Your task to perform on an android device: open app "Microsoft Authenticator" (install if not already installed) Image 0: 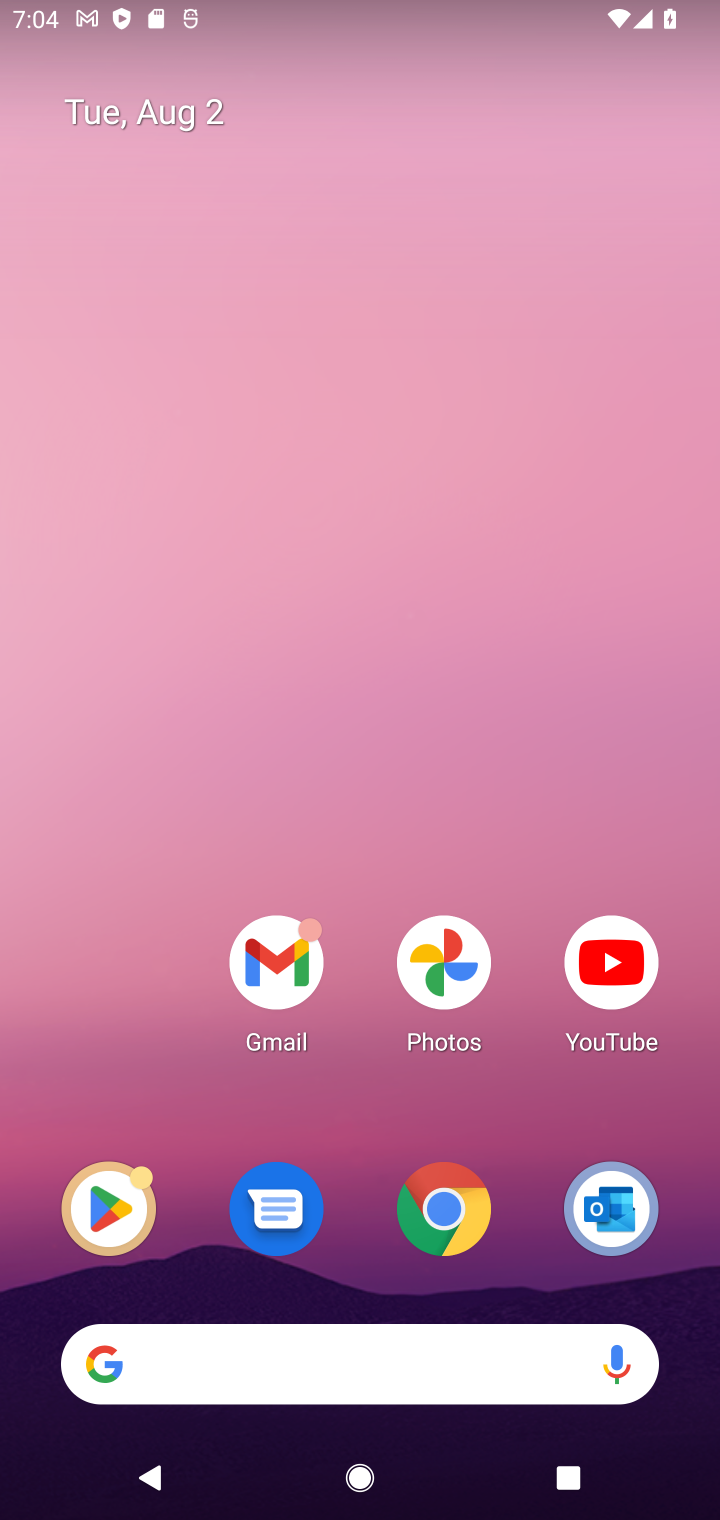
Step 0: drag from (408, 1153) to (405, 186)
Your task to perform on an android device: open app "Microsoft Authenticator" (install if not already installed) Image 1: 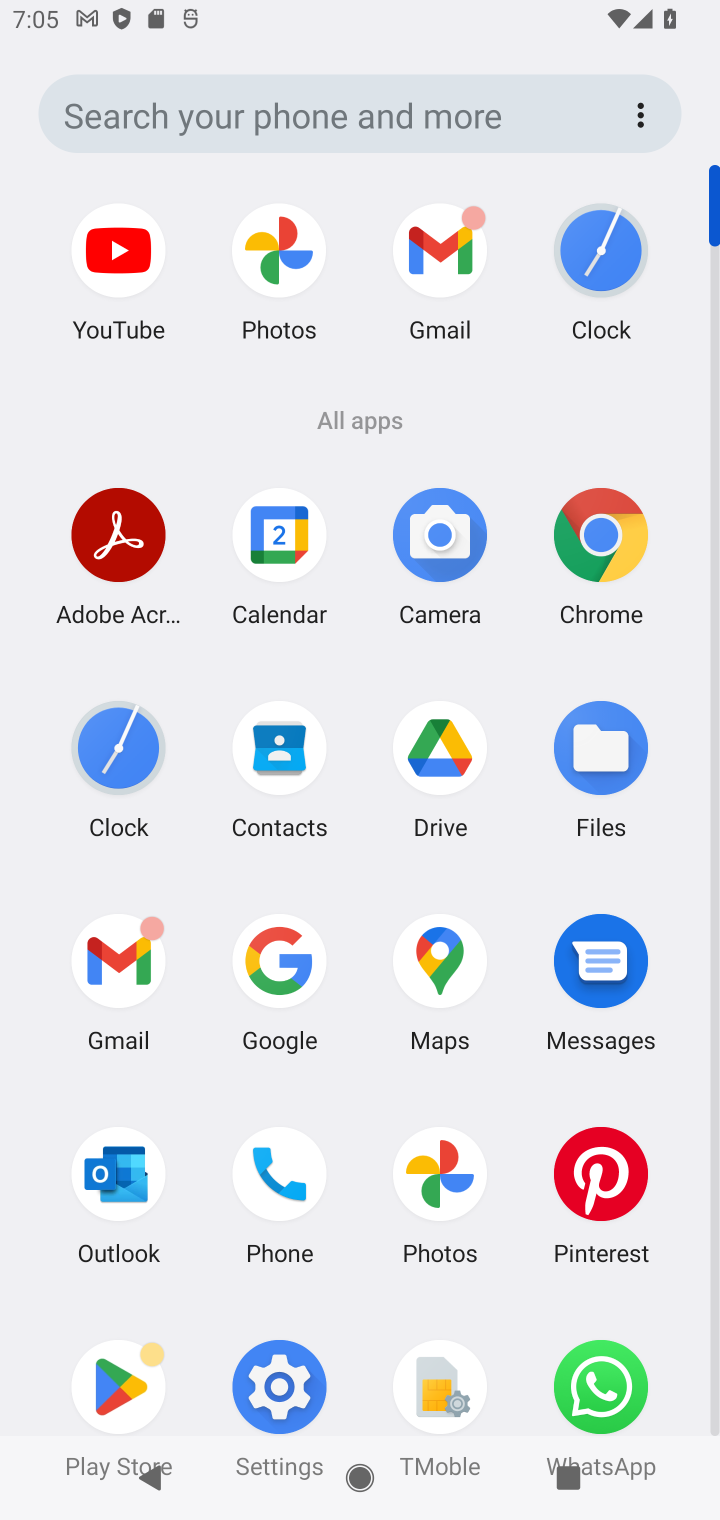
Step 1: click (110, 1390)
Your task to perform on an android device: open app "Microsoft Authenticator" (install if not already installed) Image 2: 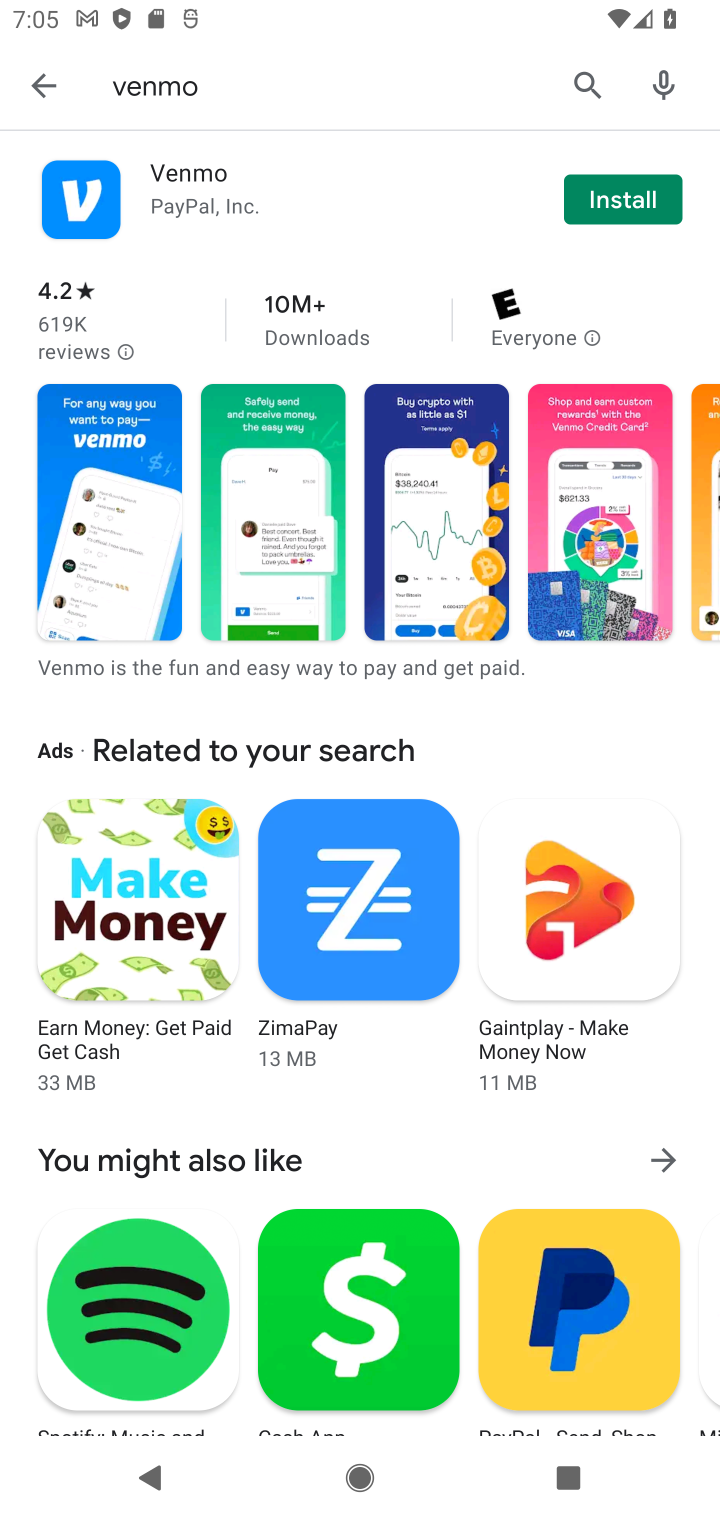
Step 2: click (584, 73)
Your task to perform on an android device: open app "Microsoft Authenticator" (install if not already installed) Image 3: 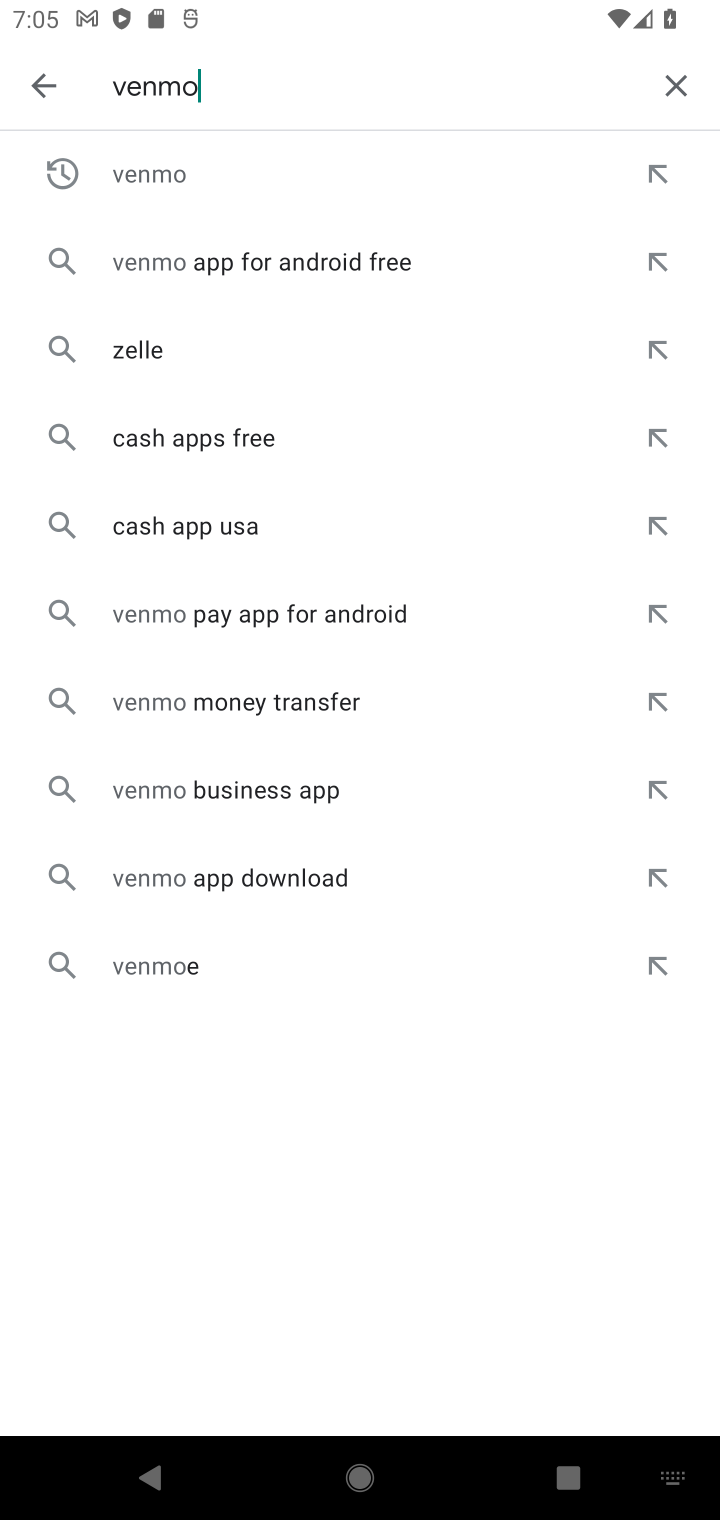
Step 3: click (673, 90)
Your task to perform on an android device: open app "Microsoft Authenticator" (install if not already installed) Image 4: 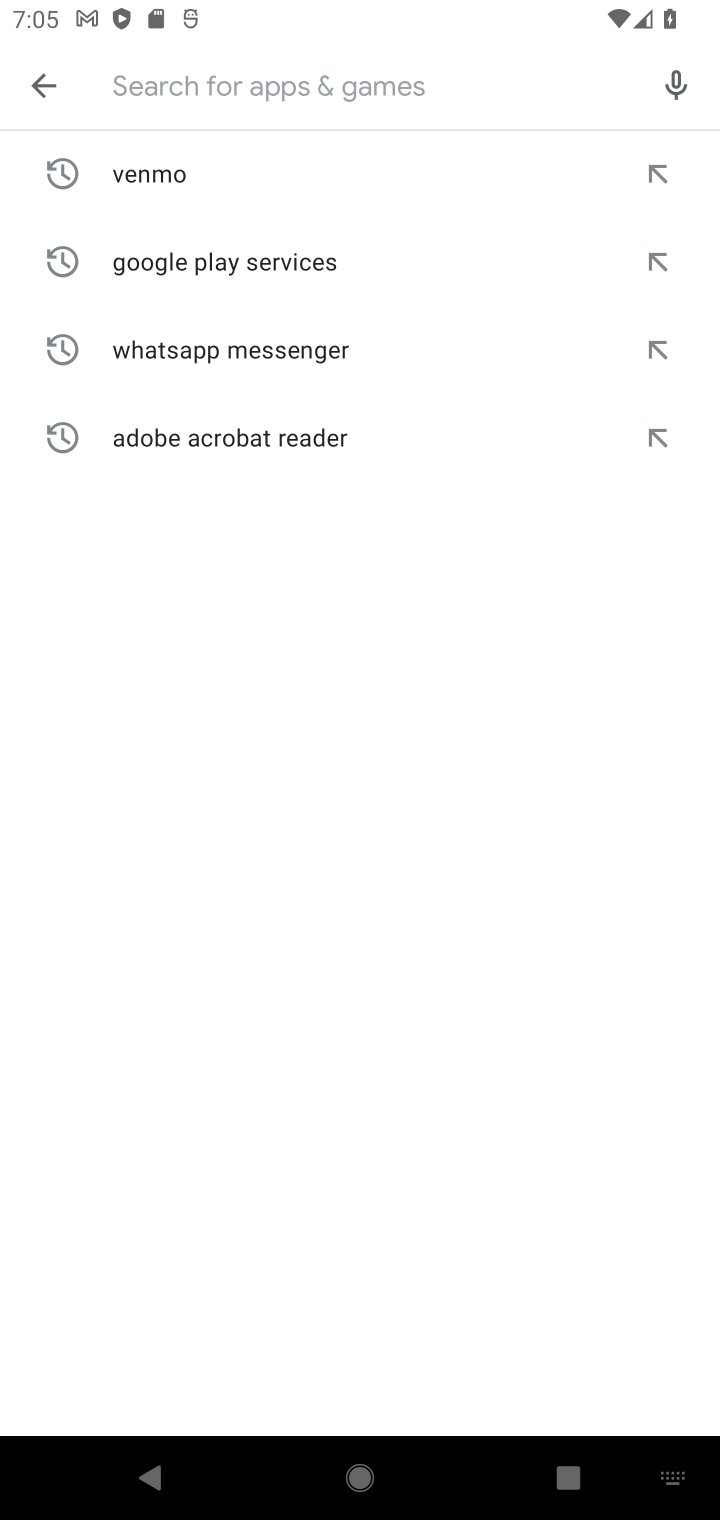
Step 4: type "Microsoft Authenticator"
Your task to perform on an android device: open app "Microsoft Authenticator" (install if not already installed) Image 5: 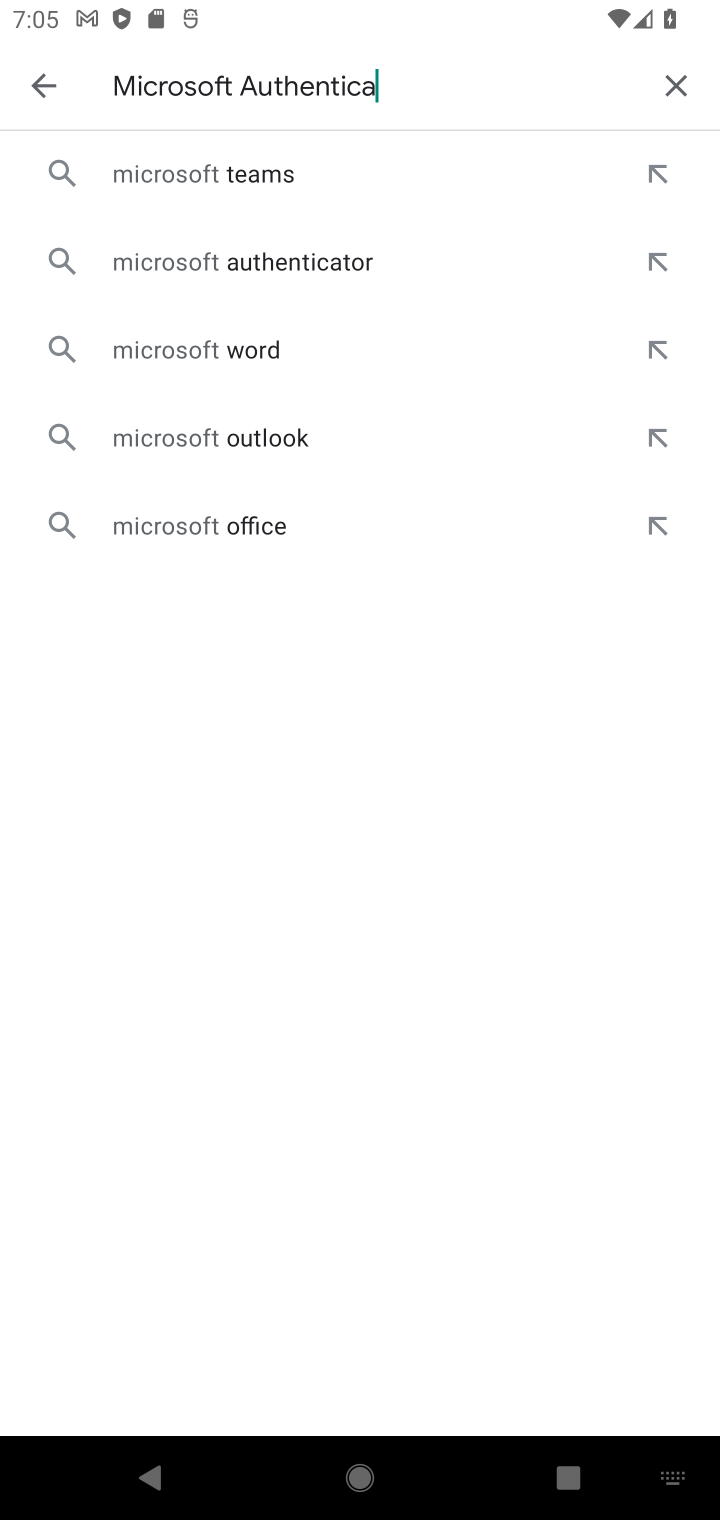
Step 5: type ""
Your task to perform on an android device: open app "Microsoft Authenticator" (install if not already installed) Image 6: 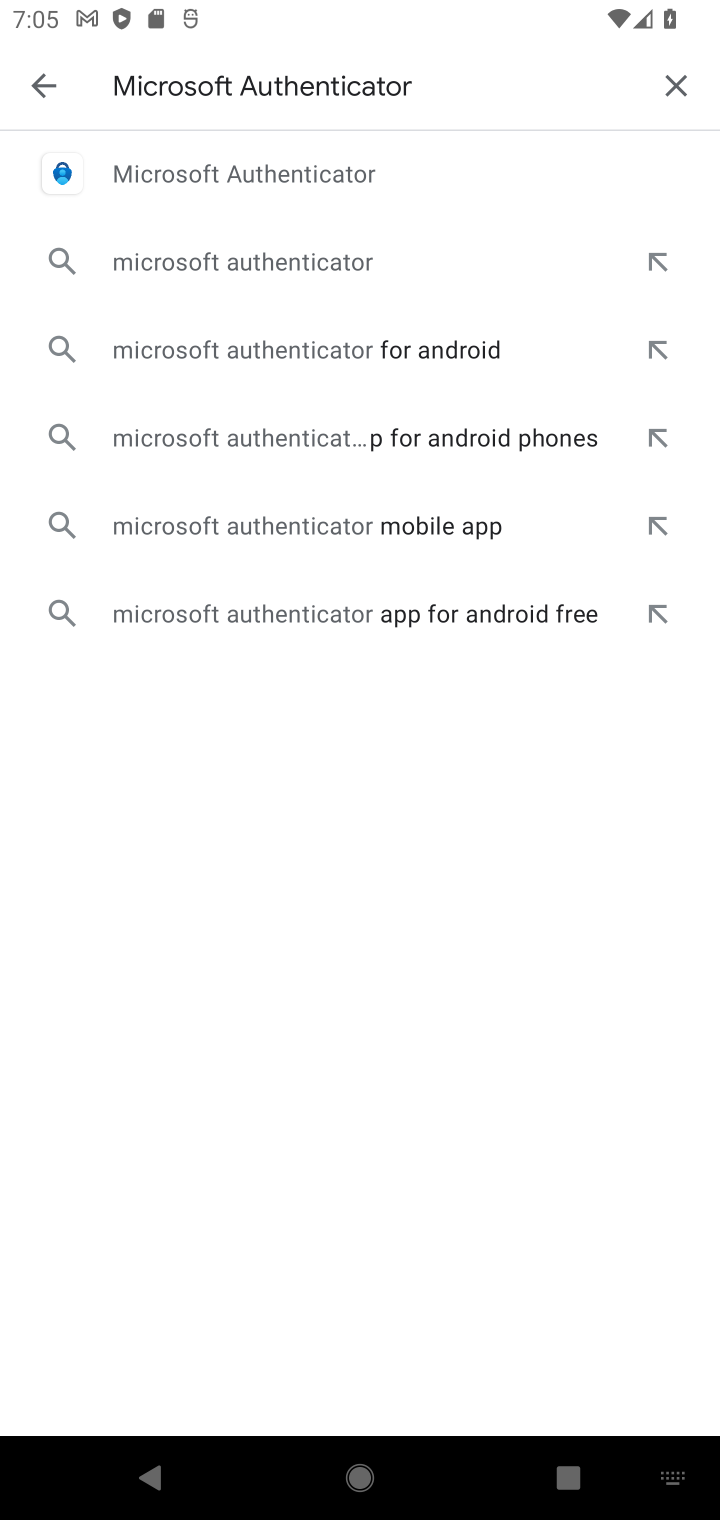
Step 6: click (274, 161)
Your task to perform on an android device: open app "Microsoft Authenticator" (install if not already installed) Image 7: 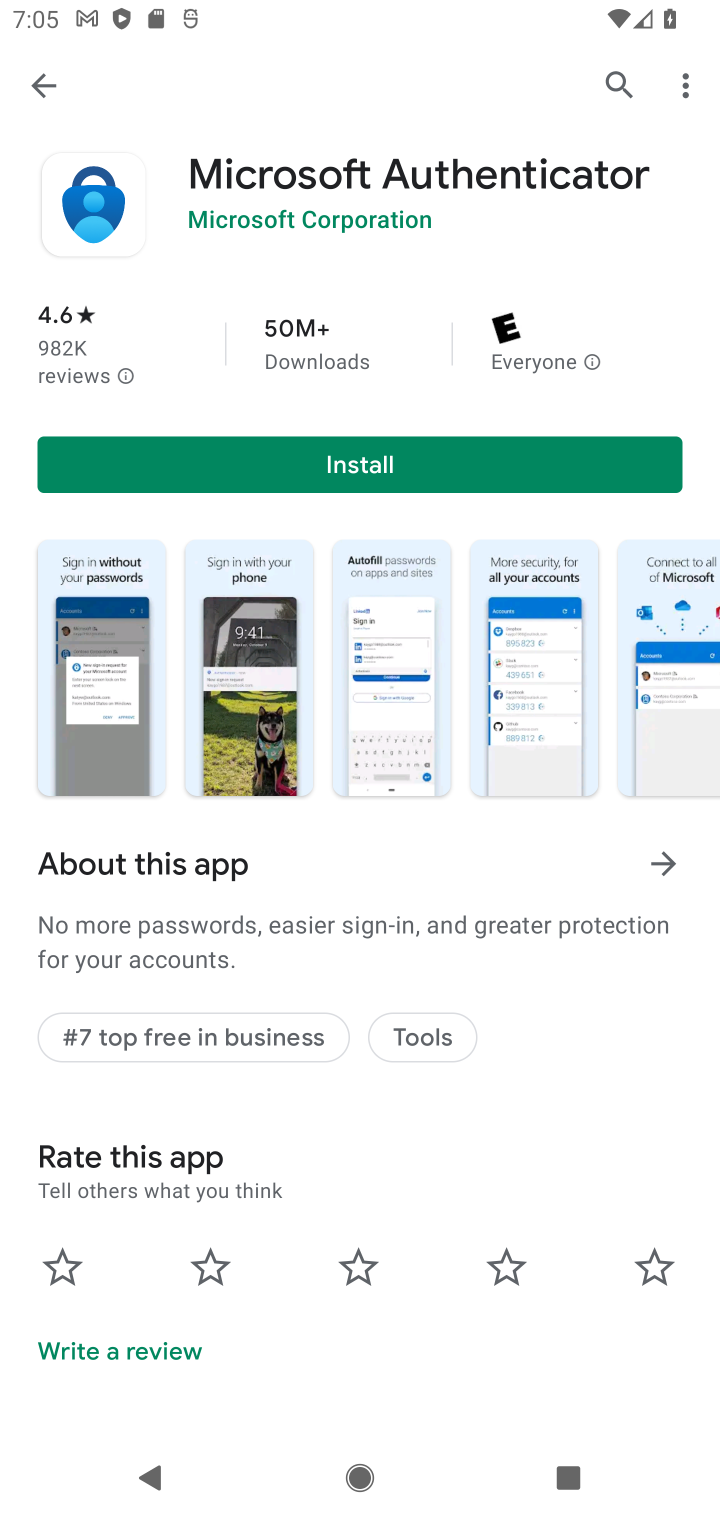
Step 7: click (346, 465)
Your task to perform on an android device: open app "Microsoft Authenticator" (install if not already installed) Image 8: 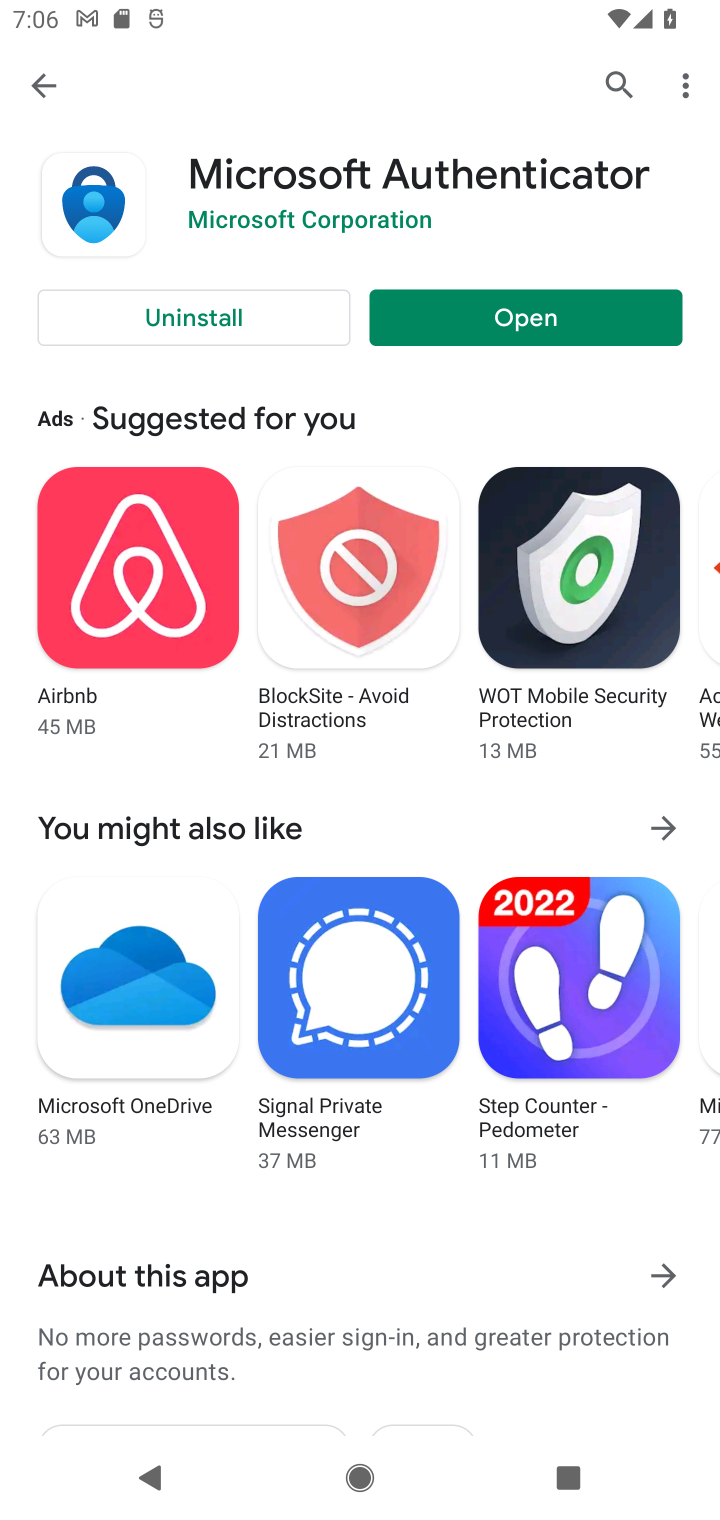
Step 8: click (498, 324)
Your task to perform on an android device: open app "Microsoft Authenticator" (install if not already installed) Image 9: 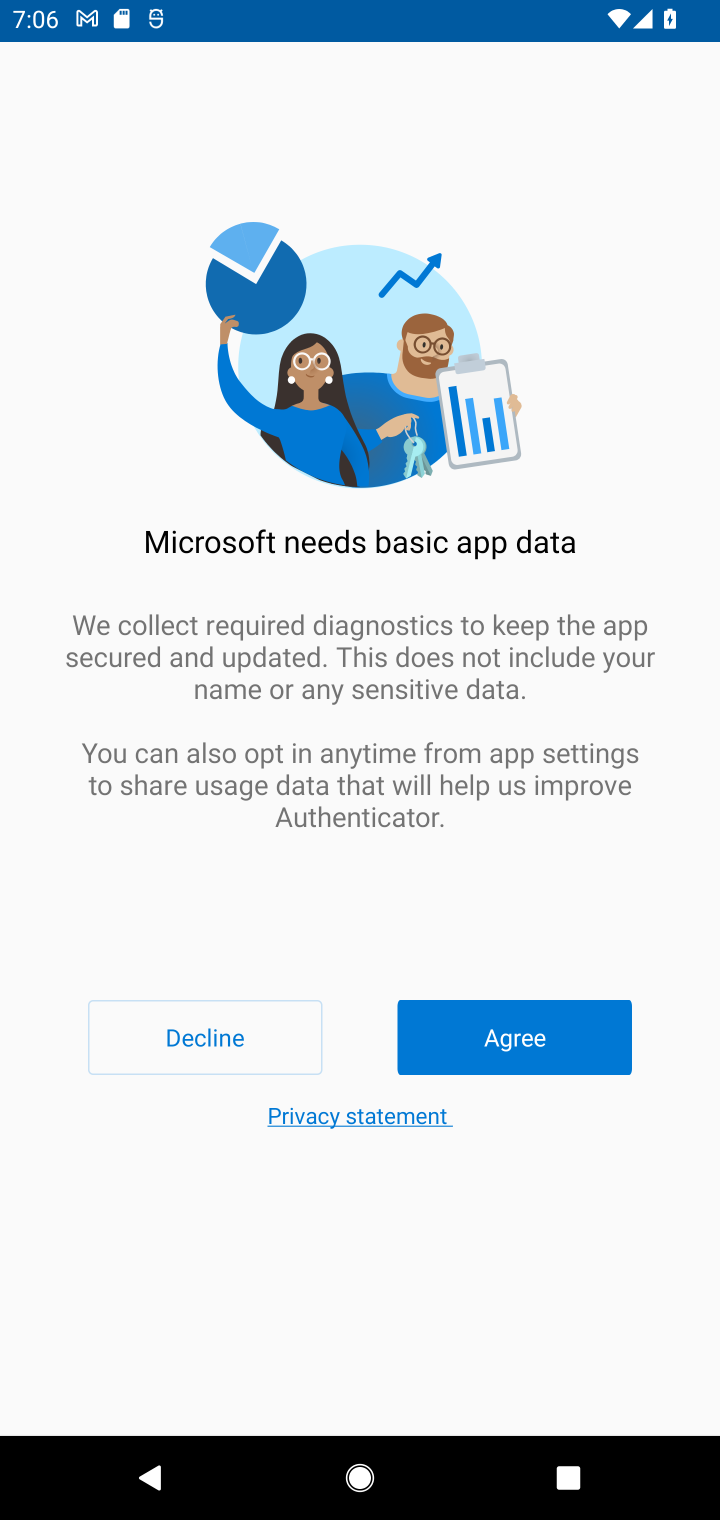
Step 9: click (238, 1032)
Your task to perform on an android device: open app "Microsoft Authenticator" (install if not already installed) Image 10: 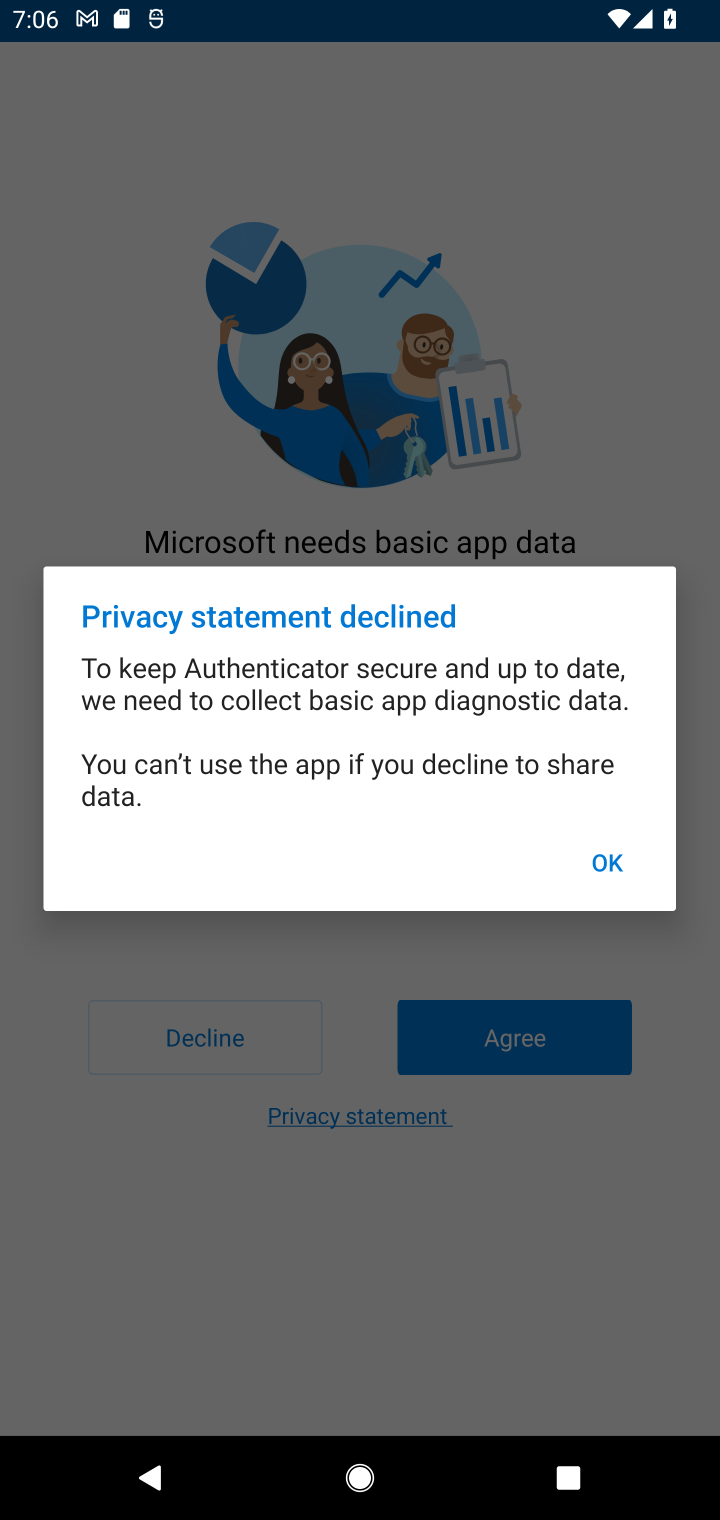
Step 10: click (602, 860)
Your task to perform on an android device: open app "Microsoft Authenticator" (install if not already installed) Image 11: 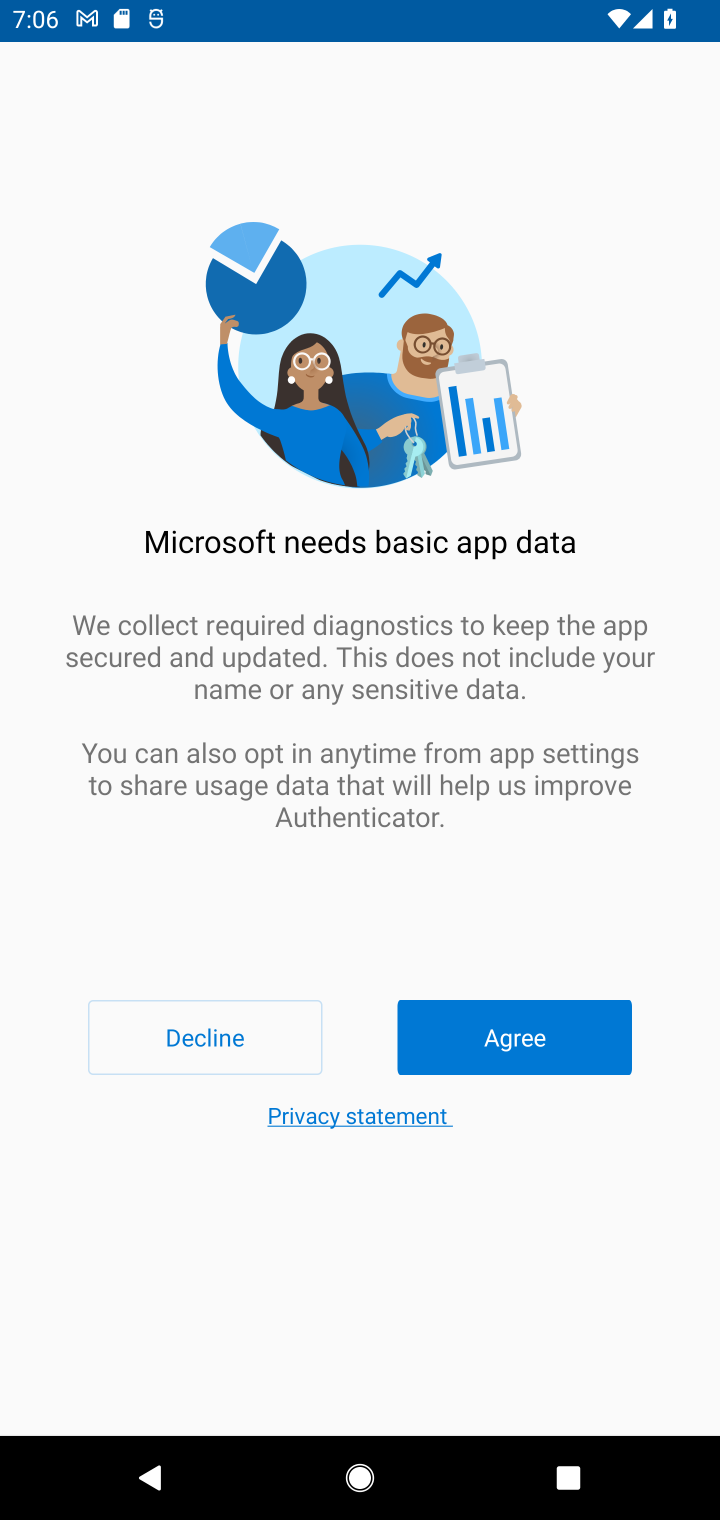
Step 11: task complete